Your task to perform on an android device: Open Maps and search for coffee Image 0: 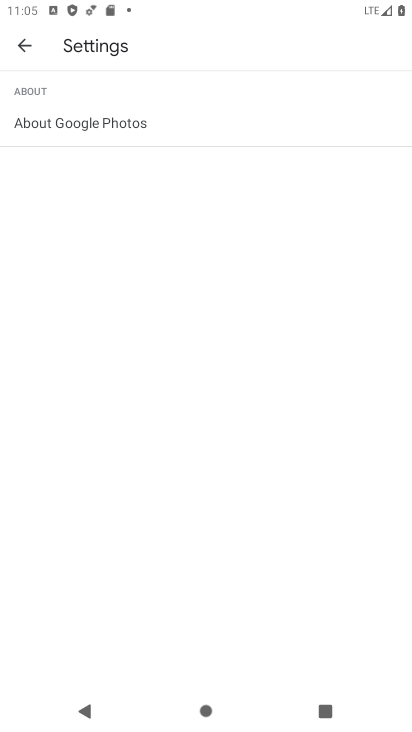
Step 0: press home button
Your task to perform on an android device: Open Maps and search for coffee Image 1: 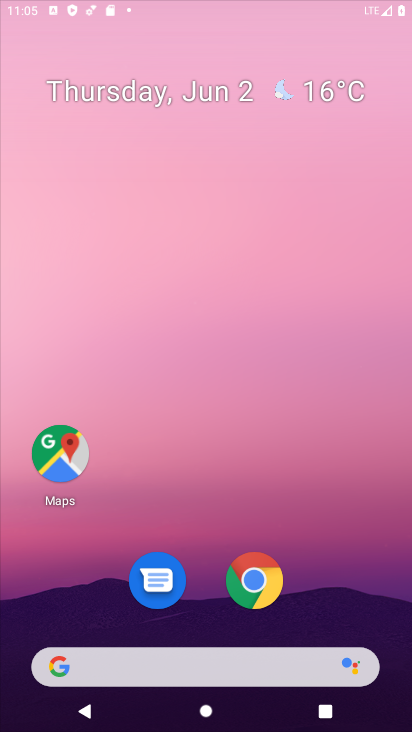
Step 1: drag from (201, 643) to (349, 6)
Your task to perform on an android device: Open Maps and search for coffee Image 2: 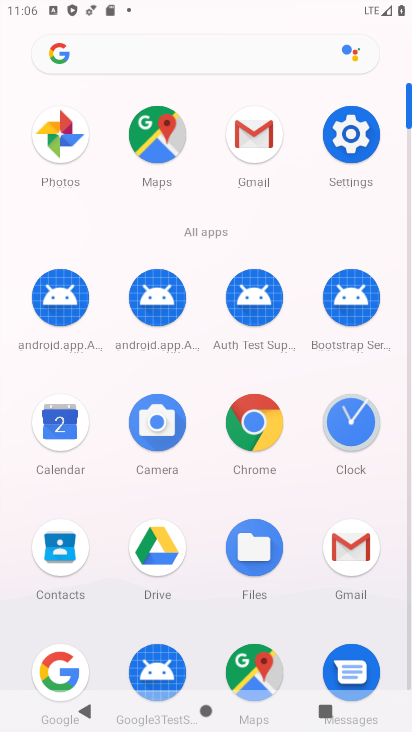
Step 2: click (175, 135)
Your task to perform on an android device: Open Maps and search for coffee Image 3: 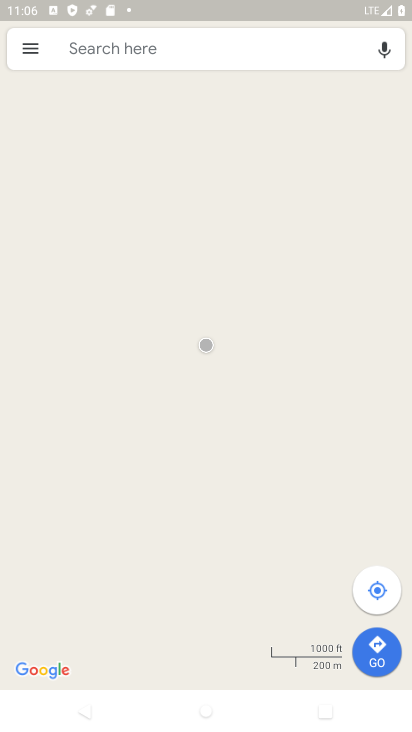
Step 3: click (191, 59)
Your task to perform on an android device: Open Maps and search for coffee Image 4: 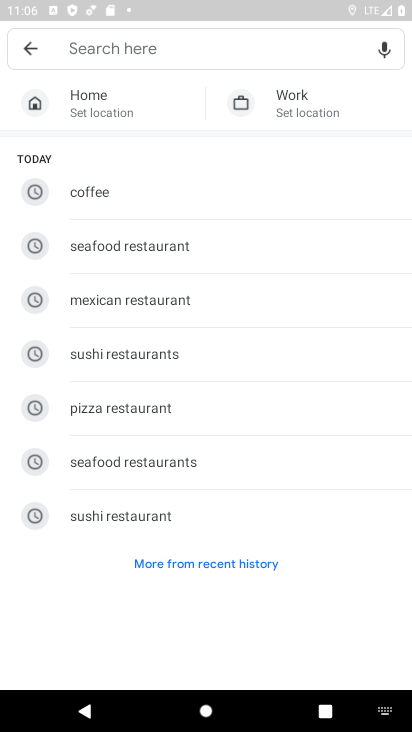
Step 4: click (109, 190)
Your task to perform on an android device: Open Maps and search for coffee Image 5: 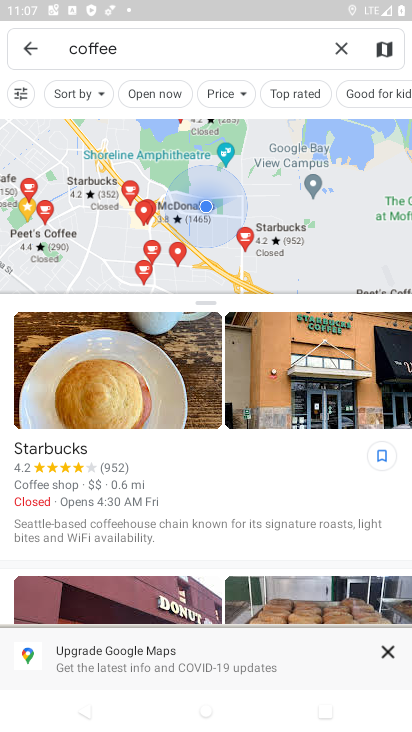
Step 5: task complete